Your task to perform on an android device: Show me popular videos on Youtube Image 0: 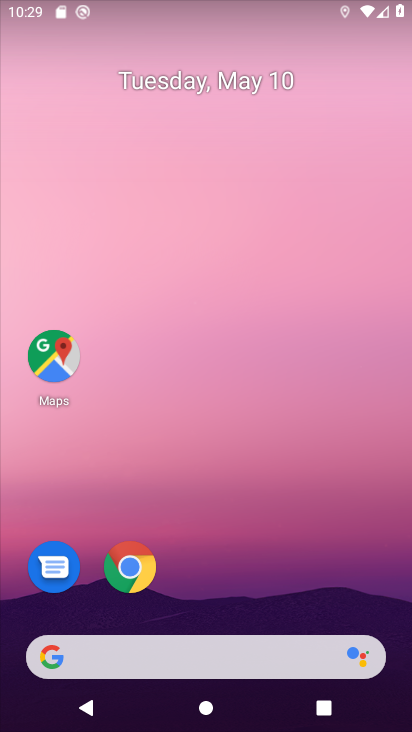
Step 0: drag from (191, 596) to (223, 16)
Your task to perform on an android device: Show me popular videos on Youtube Image 1: 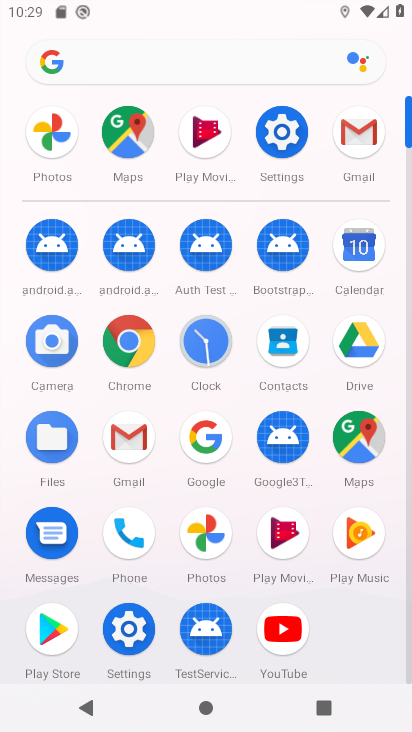
Step 1: click (270, 632)
Your task to perform on an android device: Show me popular videos on Youtube Image 2: 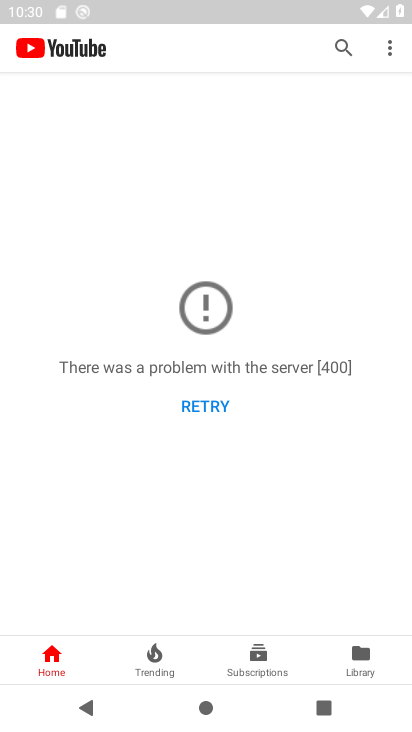
Step 2: click (147, 656)
Your task to perform on an android device: Show me popular videos on Youtube Image 3: 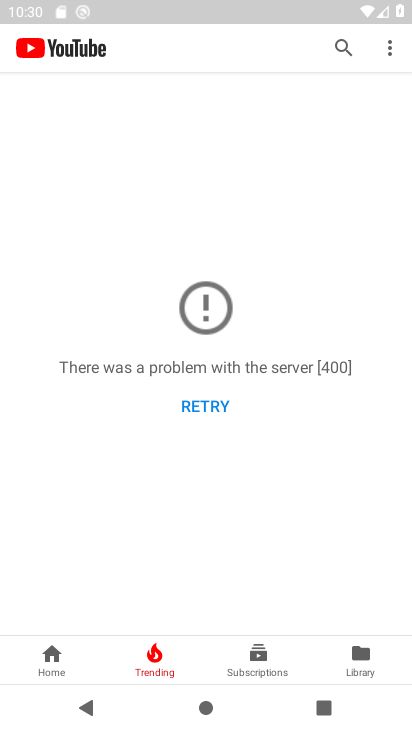
Step 3: task complete